Your task to perform on an android device: visit the assistant section in the google photos Image 0: 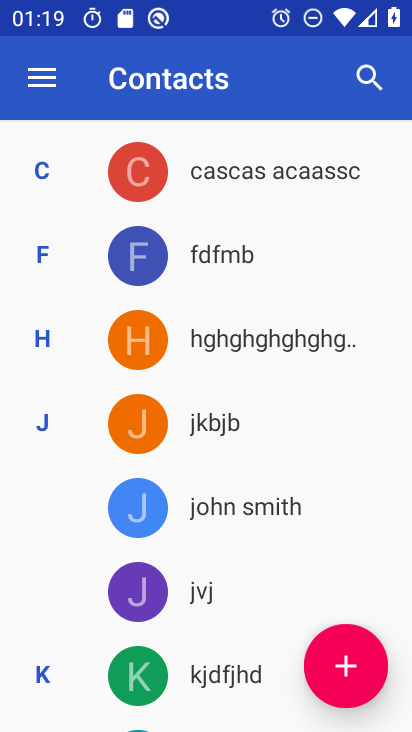
Step 0: press back button
Your task to perform on an android device: visit the assistant section in the google photos Image 1: 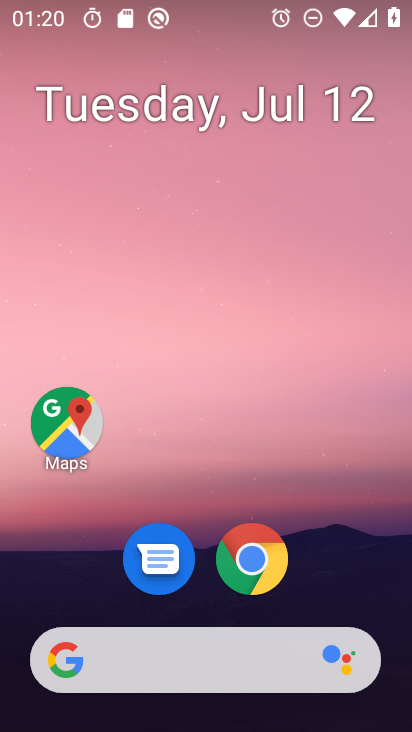
Step 1: drag from (214, 531) to (299, 23)
Your task to perform on an android device: visit the assistant section in the google photos Image 2: 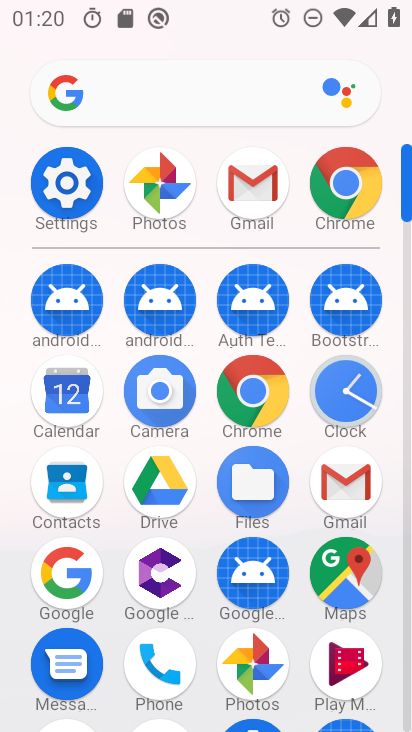
Step 2: click (243, 673)
Your task to perform on an android device: visit the assistant section in the google photos Image 3: 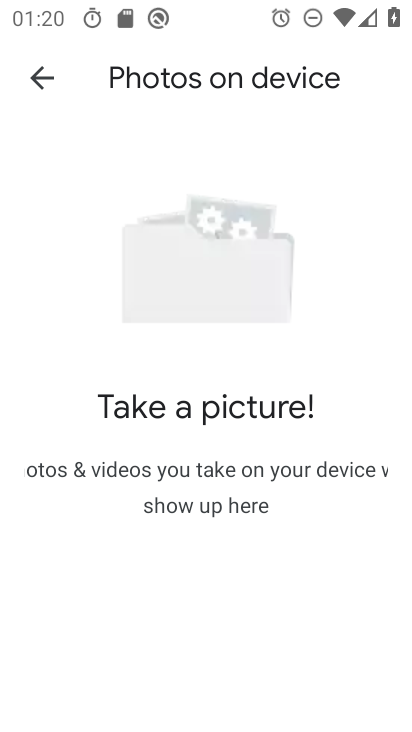
Step 3: click (36, 79)
Your task to perform on an android device: visit the assistant section in the google photos Image 4: 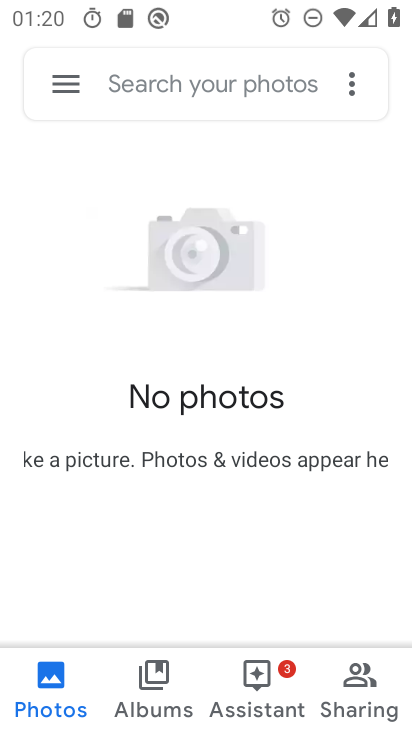
Step 4: click (265, 693)
Your task to perform on an android device: visit the assistant section in the google photos Image 5: 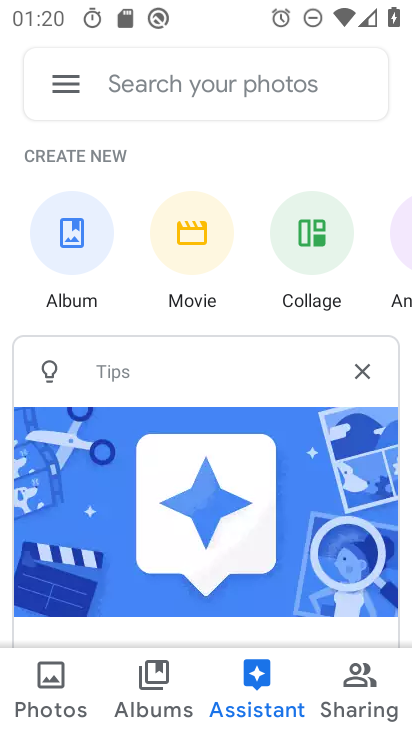
Step 5: task complete